Your task to perform on an android device: set the timer Image 0: 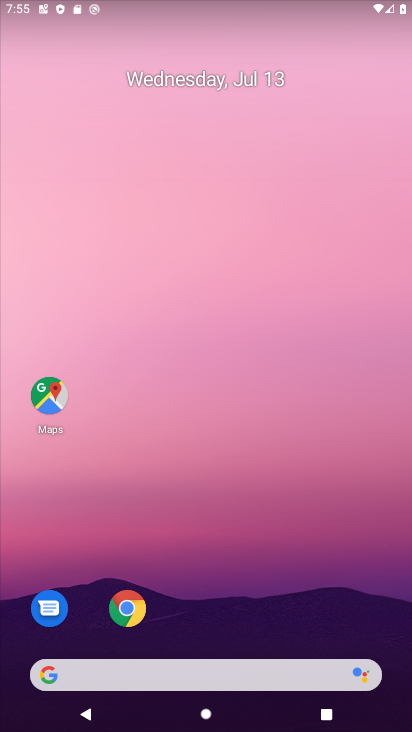
Step 0: drag from (279, 631) to (332, 629)
Your task to perform on an android device: set the timer Image 1: 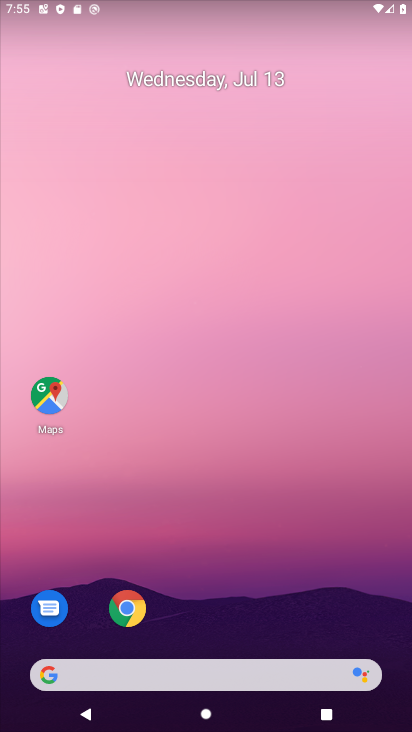
Step 1: drag from (214, 628) to (163, 1)
Your task to perform on an android device: set the timer Image 2: 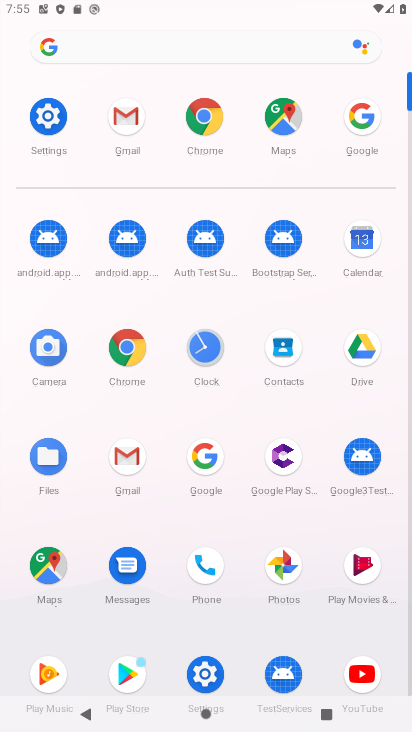
Step 2: click (212, 357)
Your task to perform on an android device: set the timer Image 3: 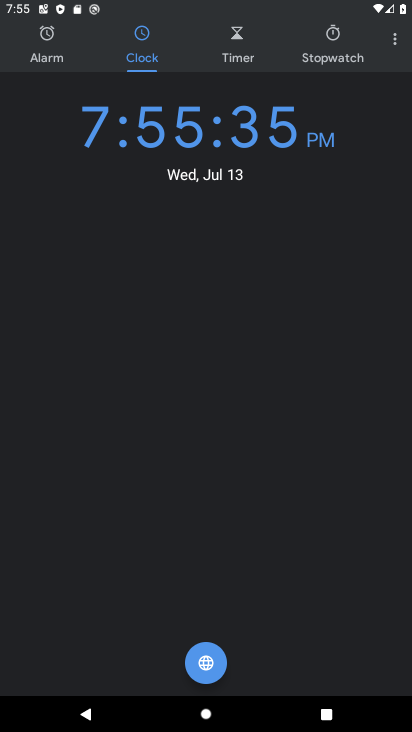
Step 3: click (243, 40)
Your task to perform on an android device: set the timer Image 4: 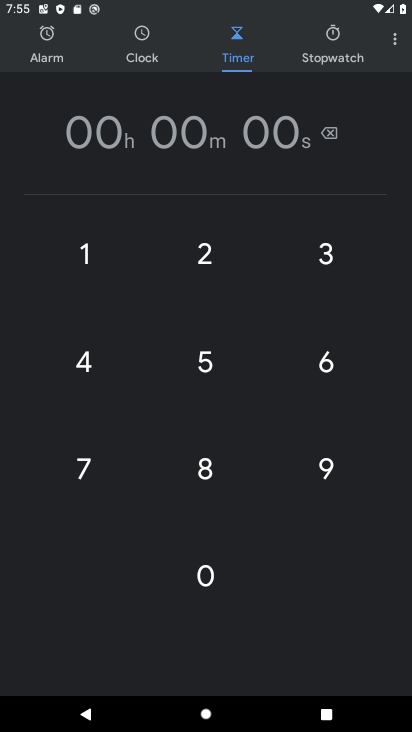
Step 4: click (229, 265)
Your task to perform on an android device: set the timer Image 5: 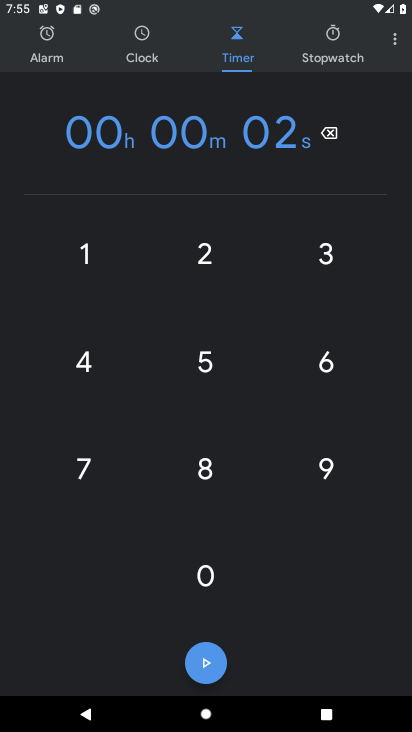
Step 5: click (217, 644)
Your task to perform on an android device: set the timer Image 6: 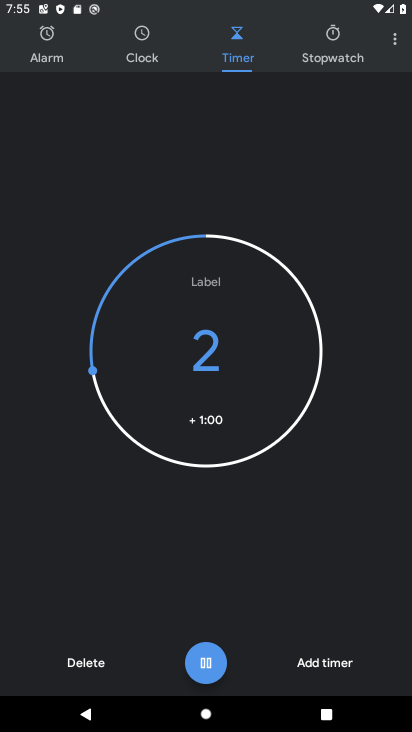
Step 6: task complete